Your task to perform on an android device: Go to accessibility settings Image 0: 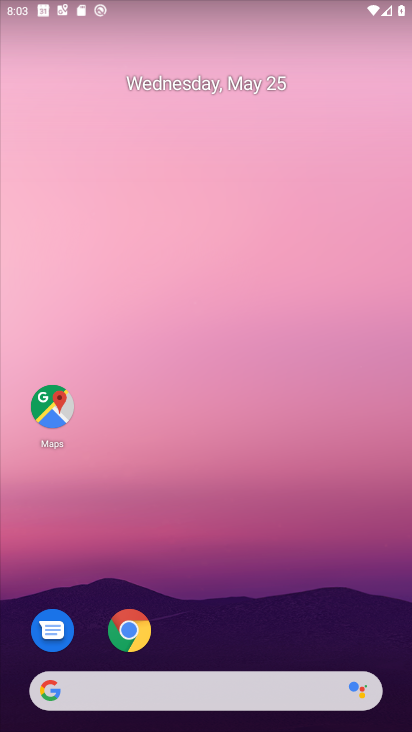
Step 0: drag from (258, 586) to (289, 259)
Your task to perform on an android device: Go to accessibility settings Image 1: 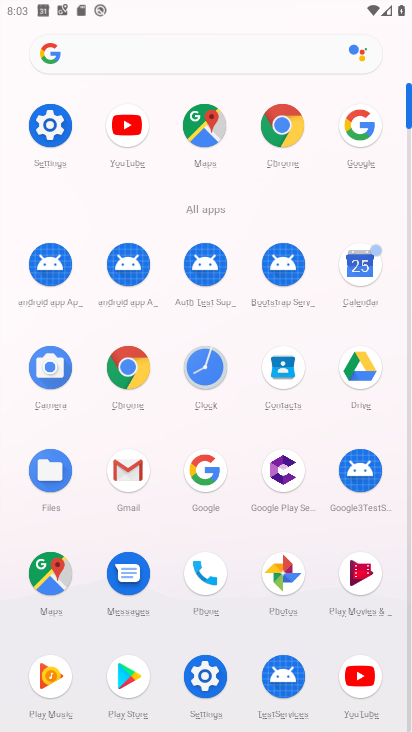
Step 1: click (57, 132)
Your task to perform on an android device: Go to accessibility settings Image 2: 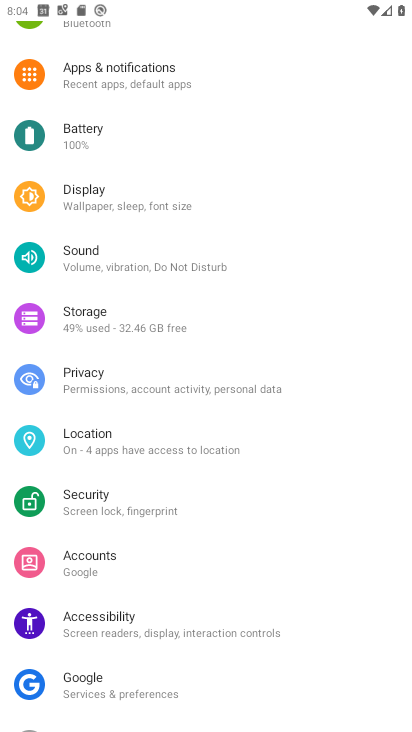
Step 2: click (100, 626)
Your task to perform on an android device: Go to accessibility settings Image 3: 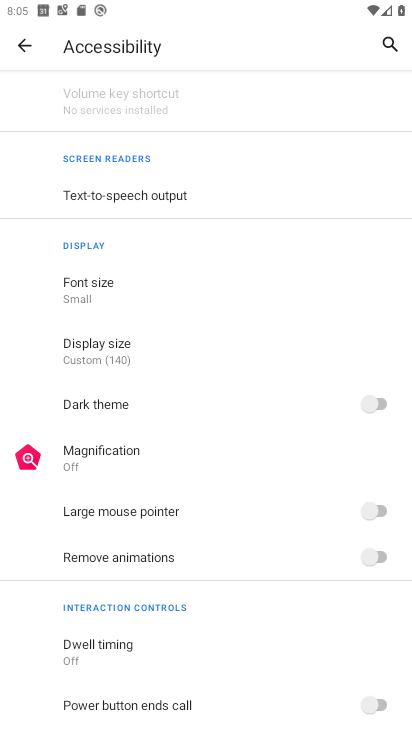
Step 3: task complete